Your task to perform on an android device: Open Yahoo.com Image 0: 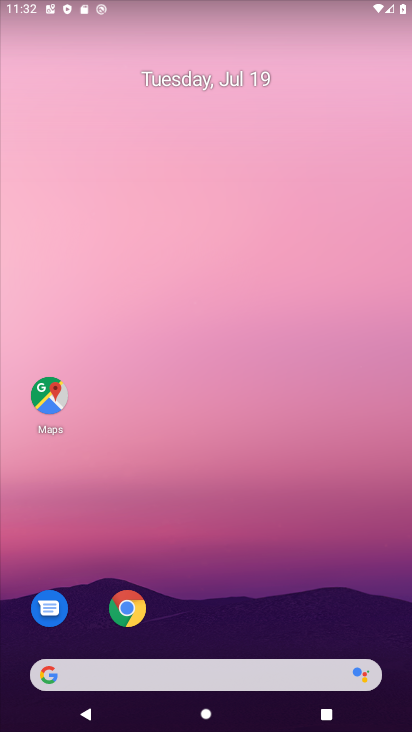
Step 0: press home button
Your task to perform on an android device: Open Yahoo.com Image 1: 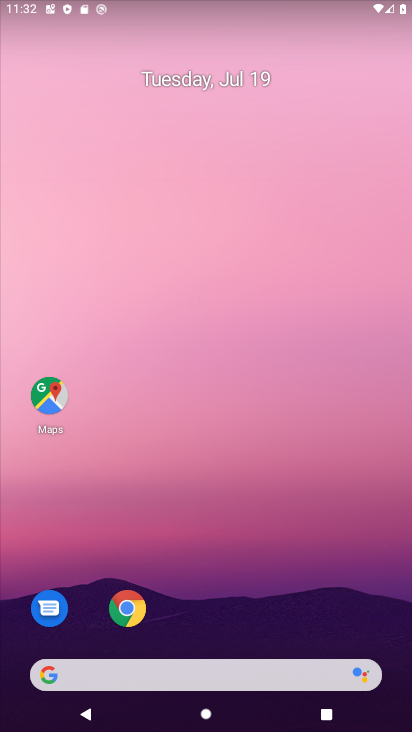
Step 1: click (52, 678)
Your task to perform on an android device: Open Yahoo.com Image 2: 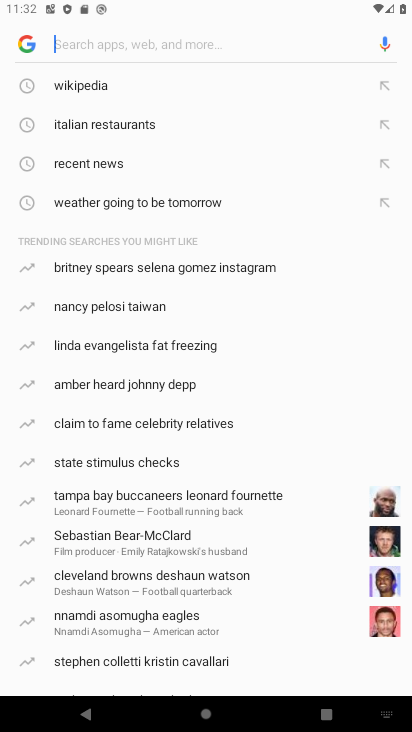
Step 2: type "Yahoo.com"
Your task to perform on an android device: Open Yahoo.com Image 3: 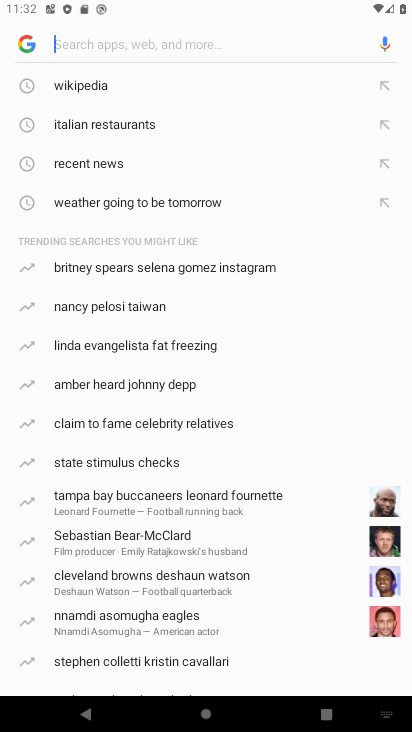
Step 3: click (102, 40)
Your task to perform on an android device: Open Yahoo.com Image 4: 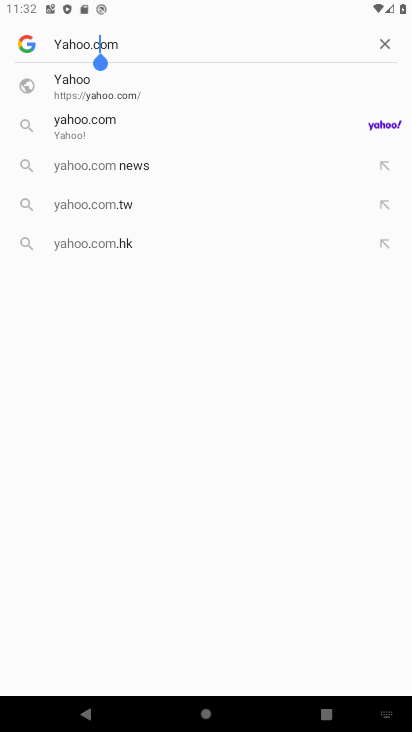
Step 4: press enter
Your task to perform on an android device: Open Yahoo.com Image 5: 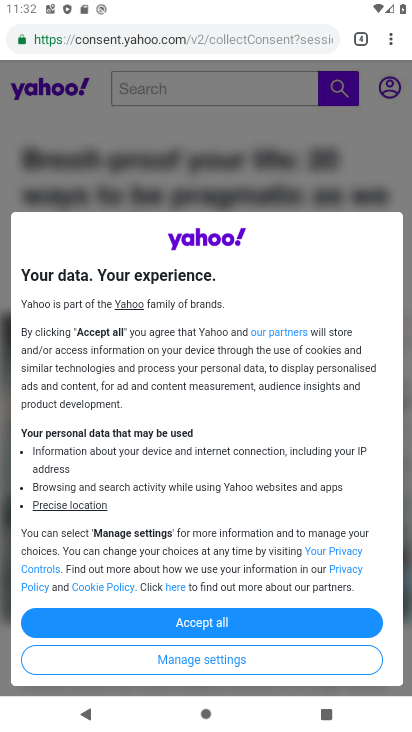
Step 5: click (219, 627)
Your task to perform on an android device: Open Yahoo.com Image 6: 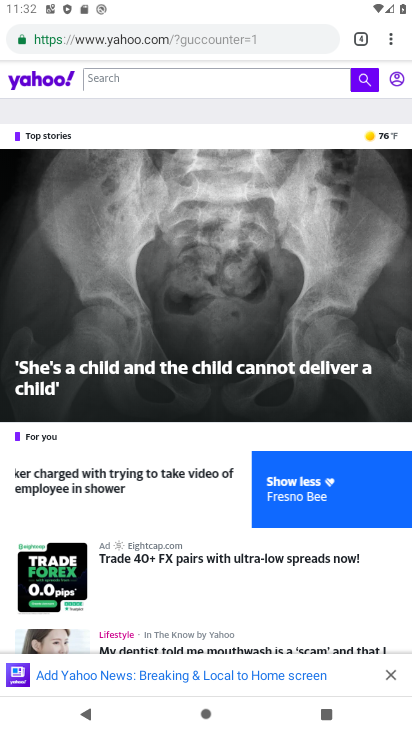
Step 6: task complete